Your task to perform on an android device: change the upload size in google photos Image 0: 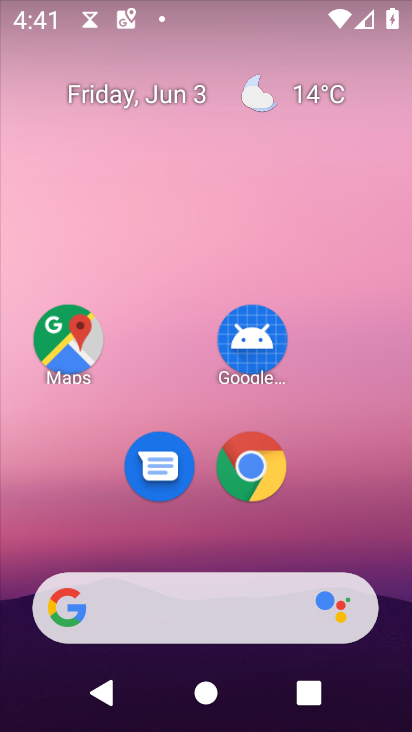
Step 0: drag from (307, 490) to (366, 5)
Your task to perform on an android device: change the upload size in google photos Image 1: 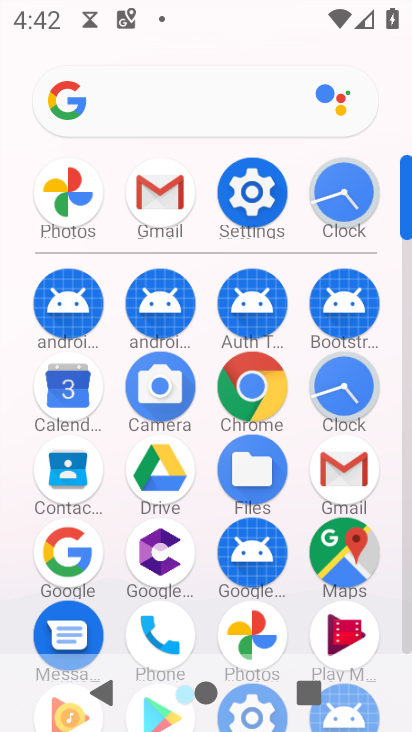
Step 1: click (256, 613)
Your task to perform on an android device: change the upload size in google photos Image 2: 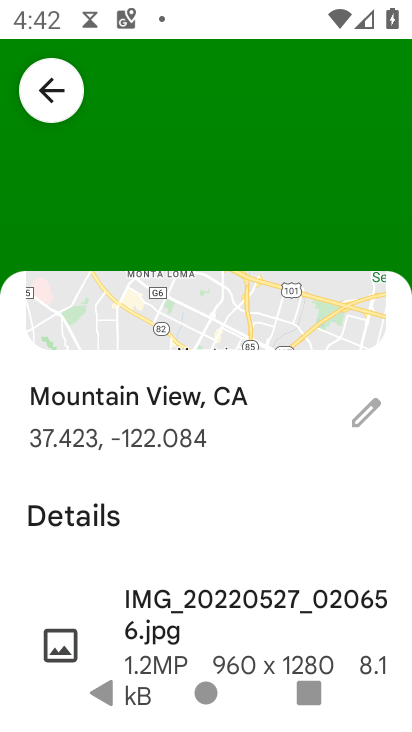
Step 2: click (282, 187)
Your task to perform on an android device: change the upload size in google photos Image 3: 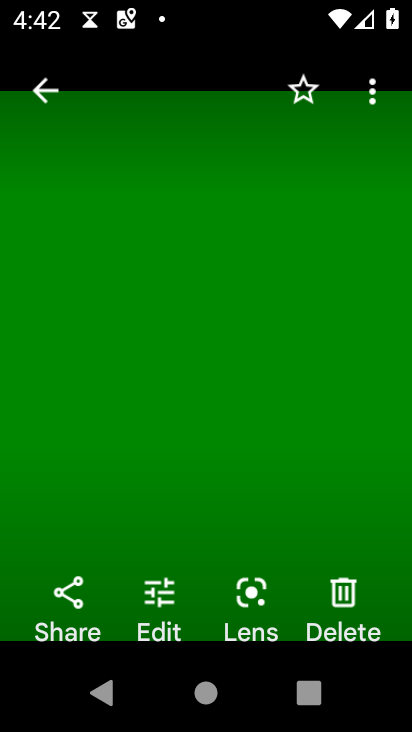
Step 3: task complete